Your task to perform on an android device: move an email to a new category in the gmail app Image 0: 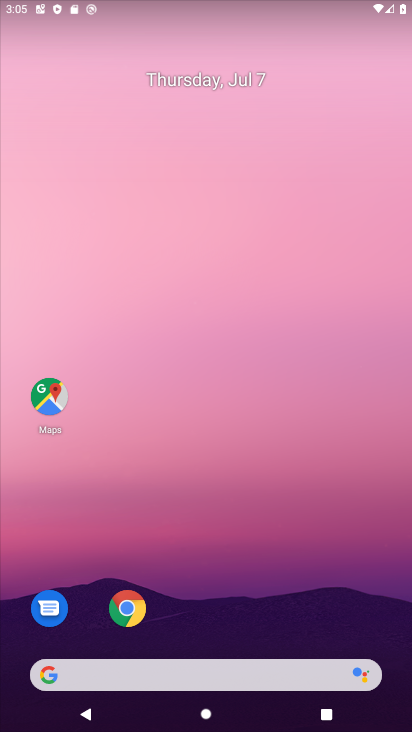
Step 0: drag from (217, 455) to (234, 68)
Your task to perform on an android device: move an email to a new category in the gmail app Image 1: 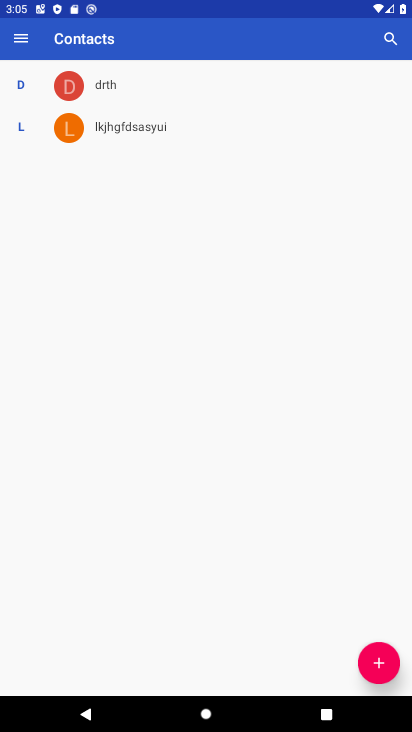
Step 1: press home button
Your task to perform on an android device: move an email to a new category in the gmail app Image 2: 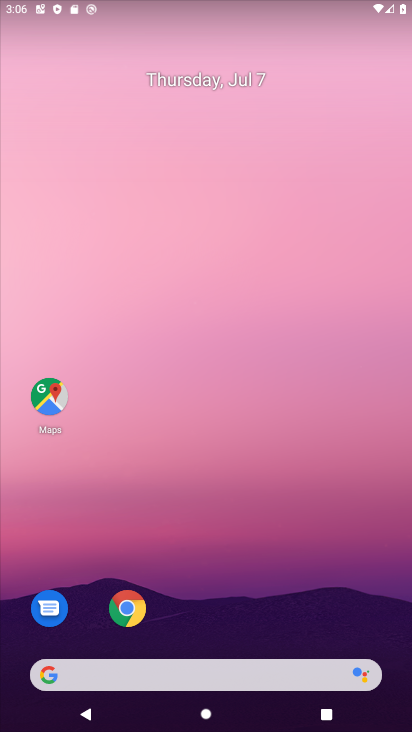
Step 2: drag from (229, 634) to (223, 47)
Your task to perform on an android device: move an email to a new category in the gmail app Image 3: 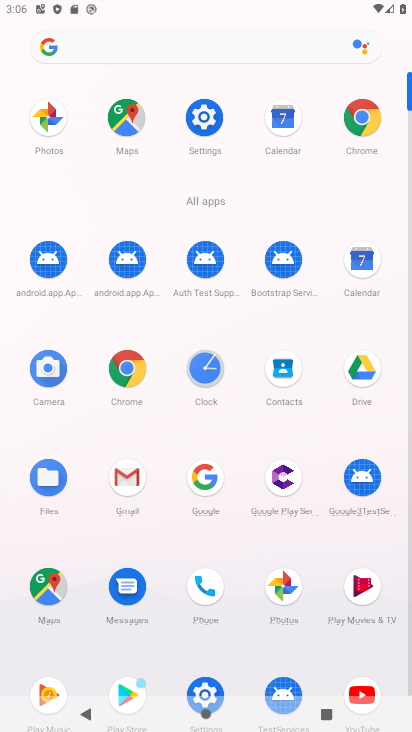
Step 3: click (122, 471)
Your task to perform on an android device: move an email to a new category in the gmail app Image 4: 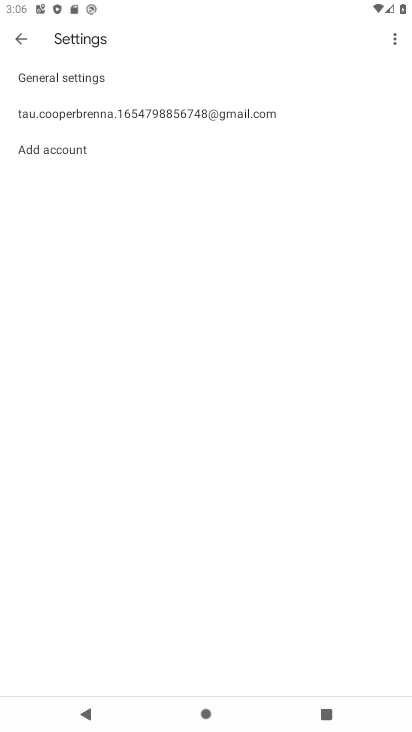
Step 4: click (20, 41)
Your task to perform on an android device: move an email to a new category in the gmail app Image 5: 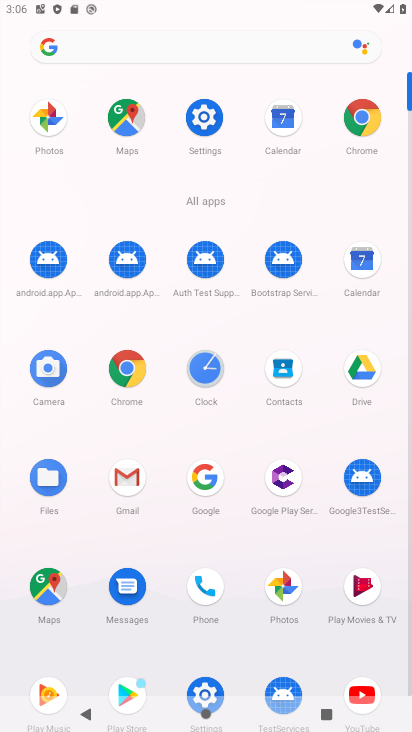
Step 5: click (122, 479)
Your task to perform on an android device: move an email to a new category in the gmail app Image 6: 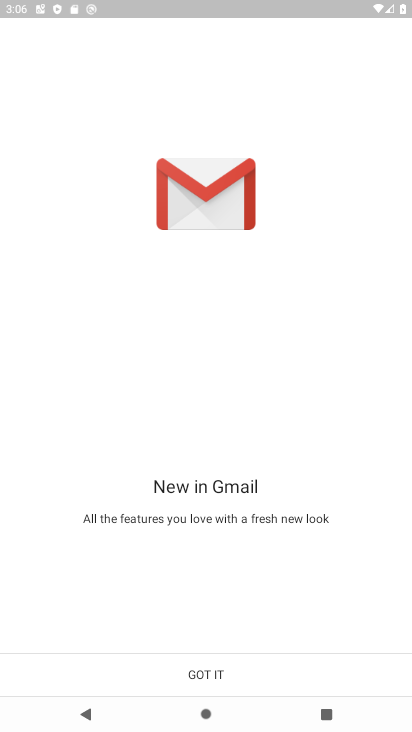
Step 6: click (202, 666)
Your task to perform on an android device: move an email to a new category in the gmail app Image 7: 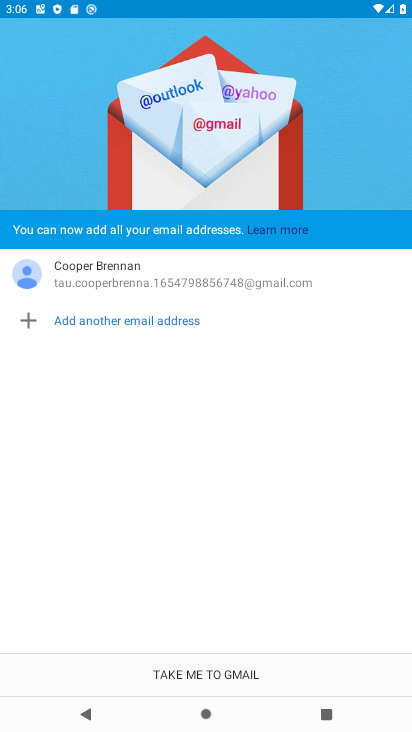
Step 7: click (218, 670)
Your task to perform on an android device: move an email to a new category in the gmail app Image 8: 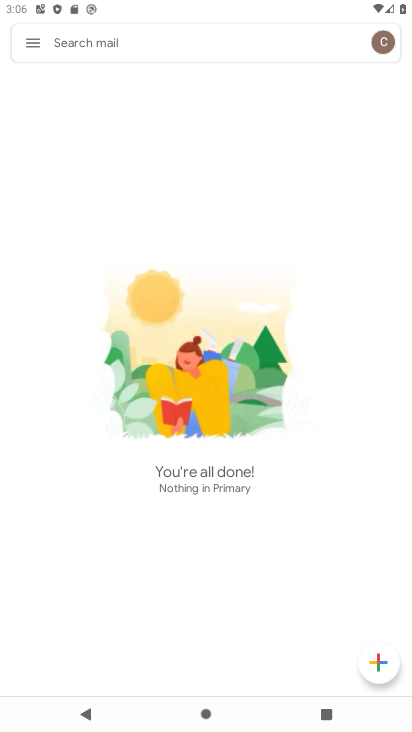
Step 8: click (35, 44)
Your task to perform on an android device: move an email to a new category in the gmail app Image 9: 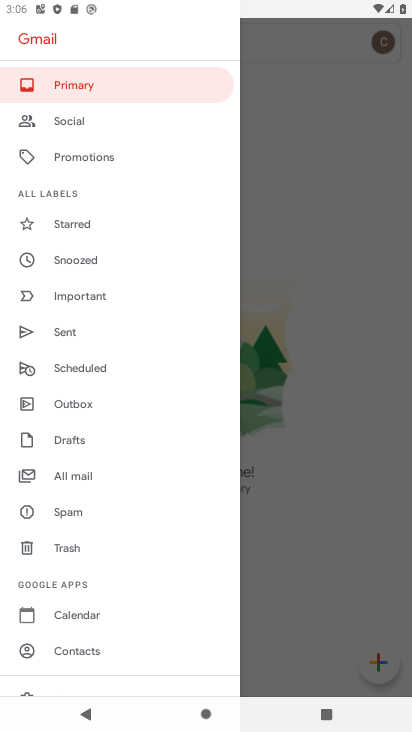
Step 9: click (80, 477)
Your task to perform on an android device: move an email to a new category in the gmail app Image 10: 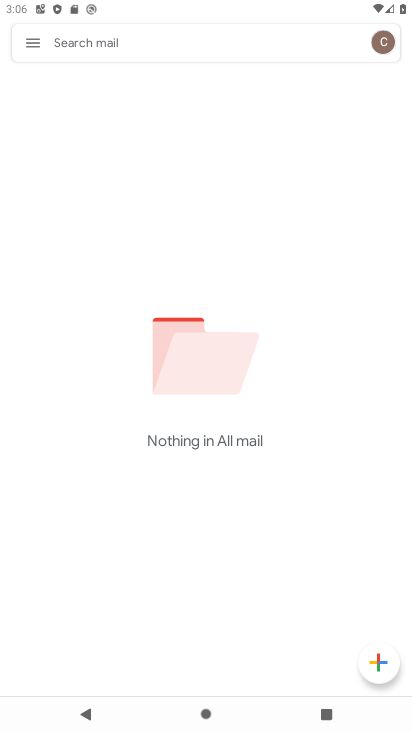
Step 10: task complete